Your task to perform on an android device: change the clock style Image 0: 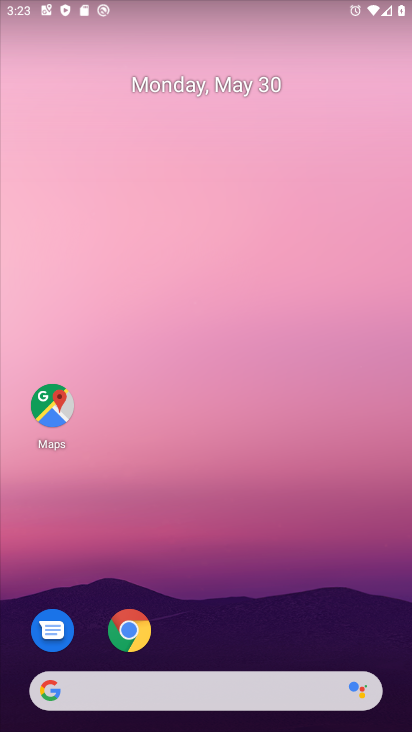
Step 0: drag from (316, 627) to (279, 153)
Your task to perform on an android device: change the clock style Image 1: 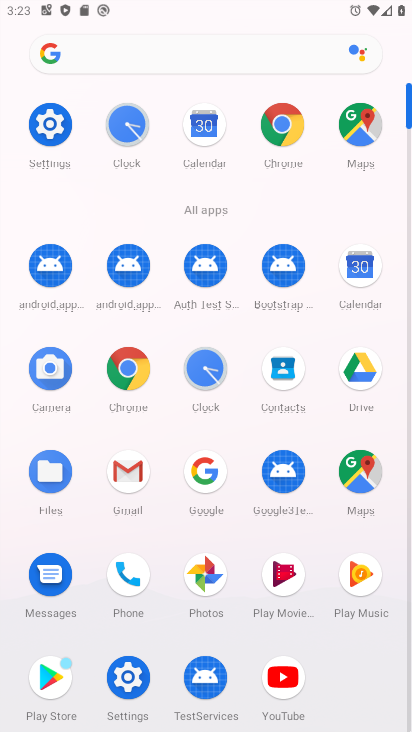
Step 1: click (226, 356)
Your task to perform on an android device: change the clock style Image 2: 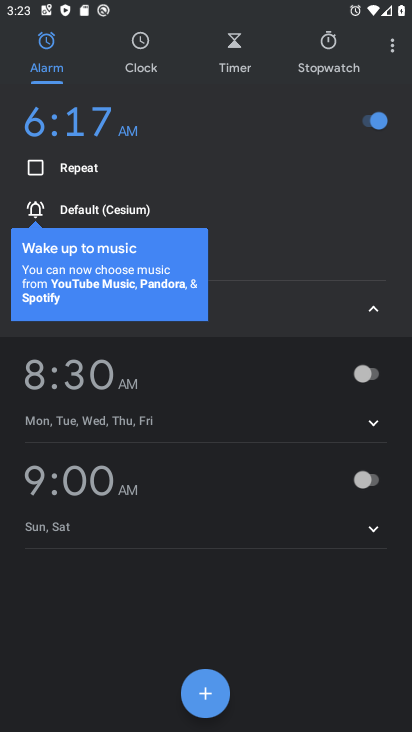
Step 2: click (395, 50)
Your task to perform on an android device: change the clock style Image 3: 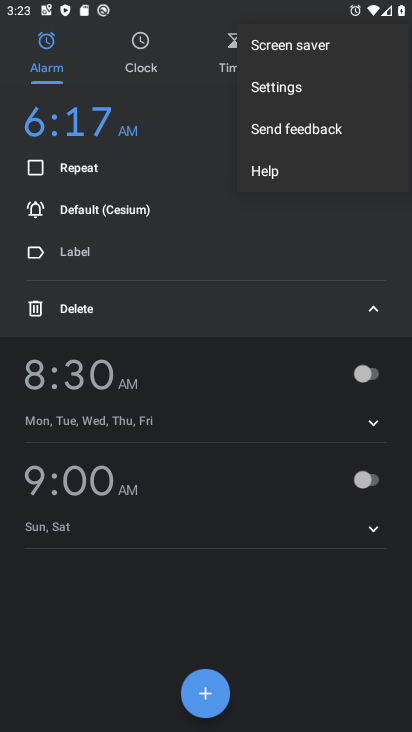
Step 3: click (311, 98)
Your task to perform on an android device: change the clock style Image 4: 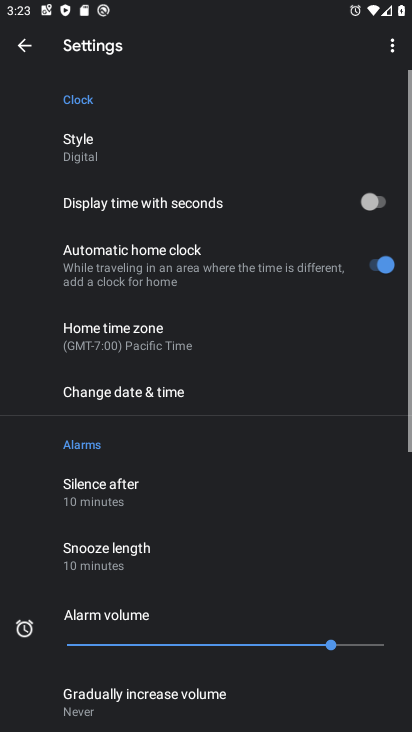
Step 4: click (70, 165)
Your task to perform on an android device: change the clock style Image 5: 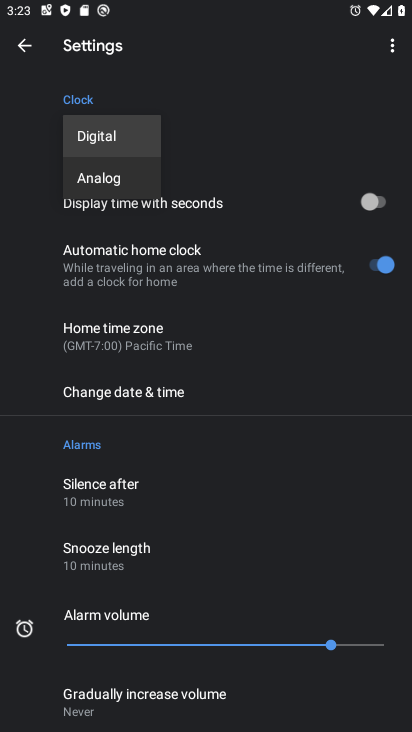
Step 5: click (84, 179)
Your task to perform on an android device: change the clock style Image 6: 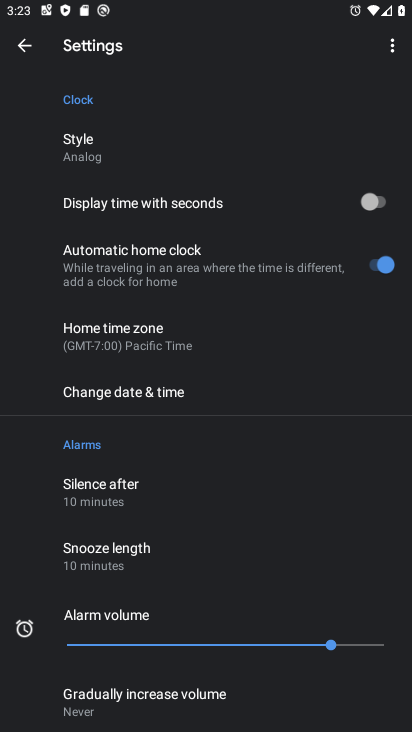
Step 6: task complete